Your task to perform on an android device: open the mobile data screen to see how much data has been used Image 0: 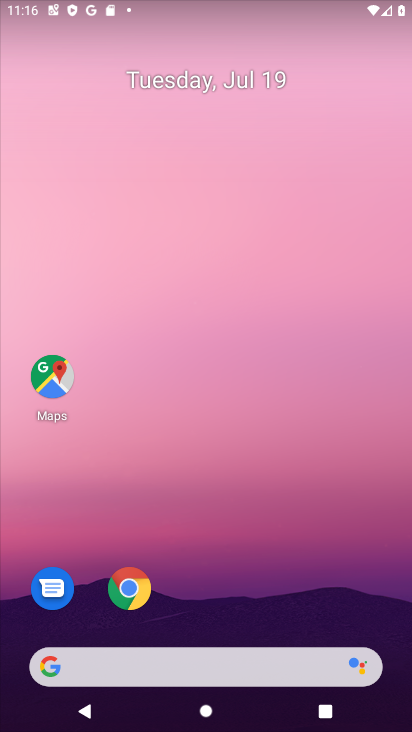
Step 0: drag from (253, 729) to (239, 182)
Your task to perform on an android device: open the mobile data screen to see how much data has been used Image 1: 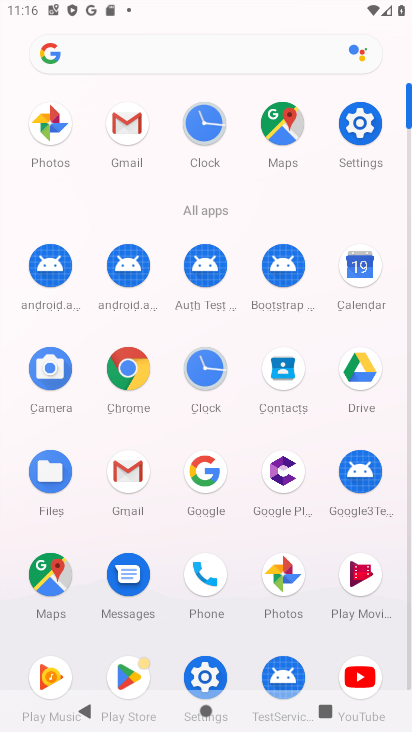
Step 1: click (358, 122)
Your task to perform on an android device: open the mobile data screen to see how much data has been used Image 2: 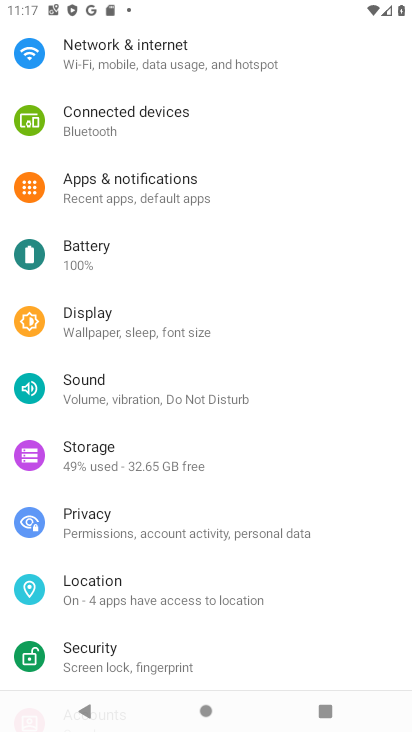
Step 2: click (130, 63)
Your task to perform on an android device: open the mobile data screen to see how much data has been used Image 3: 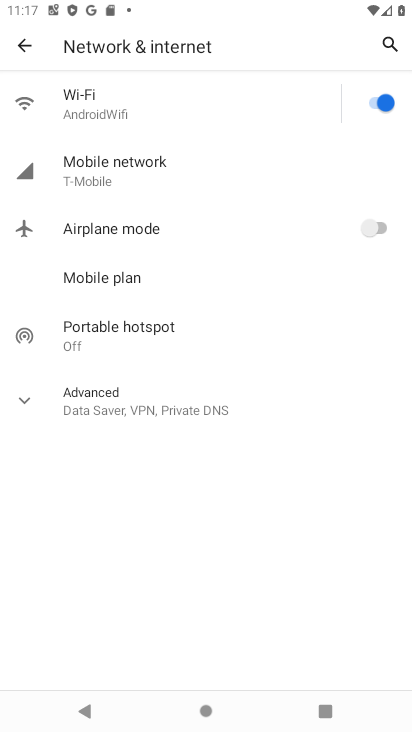
Step 3: click (107, 167)
Your task to perform on an android device: open the mobile data screen to see how much data has been used Image 4: 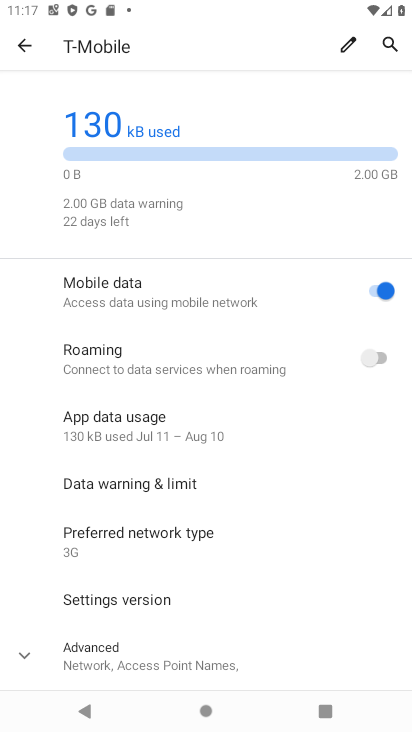
Step 4: click (110, 429)
Your task to perform on an android device: open the mobile data screen to see how much data has been used Image 5: 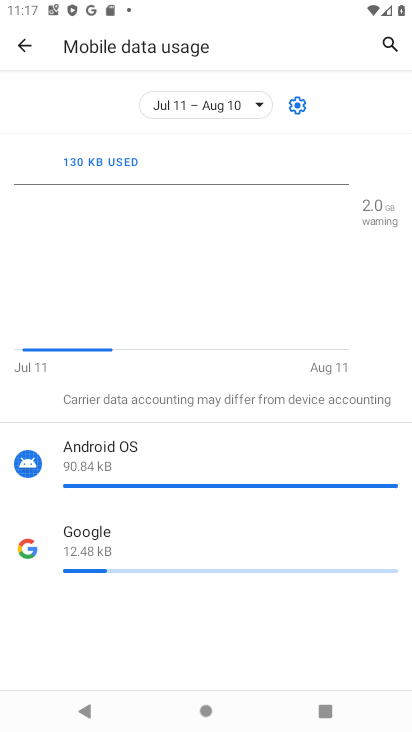
Step 5: task complete